Your task to perform on an android device: set an alarm Image 0: 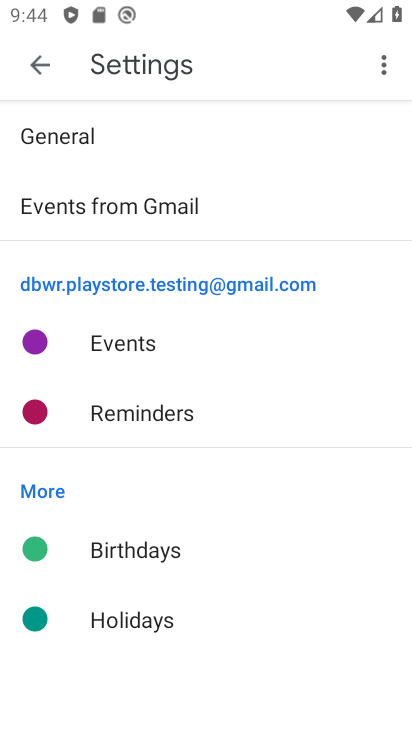
Step 0: press home button
Your task to perform on an android device: set an alarm Image 1: 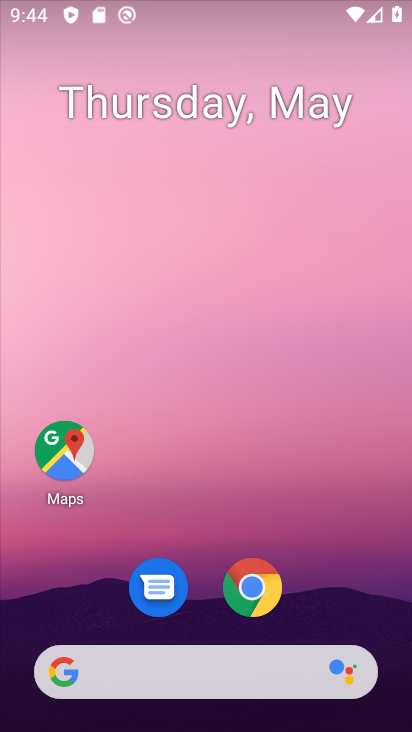
Step 1: drag from (384, 659) to (344, 29)
Your task to perform on an android device: set an alarm Image 2: 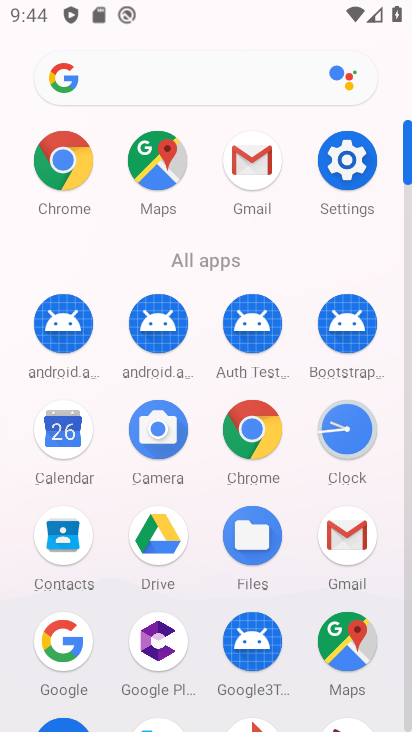
Step 2: click (357, 433)
Your task to perform on an android device: set an alarm Image 3: 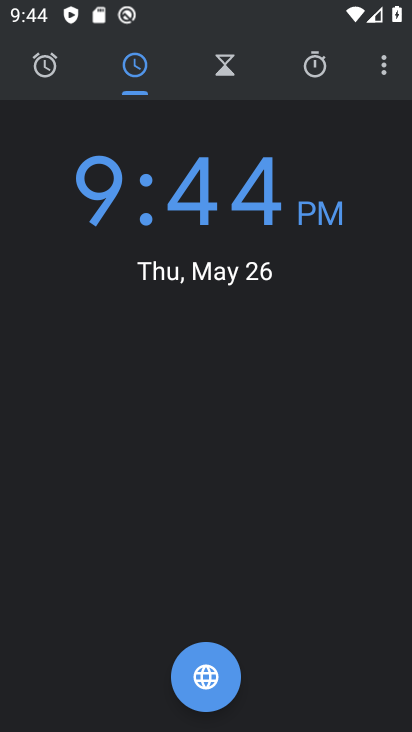
Step 3: click (53, 88)
Your task to perform on an android device: set an alarm Image 4: 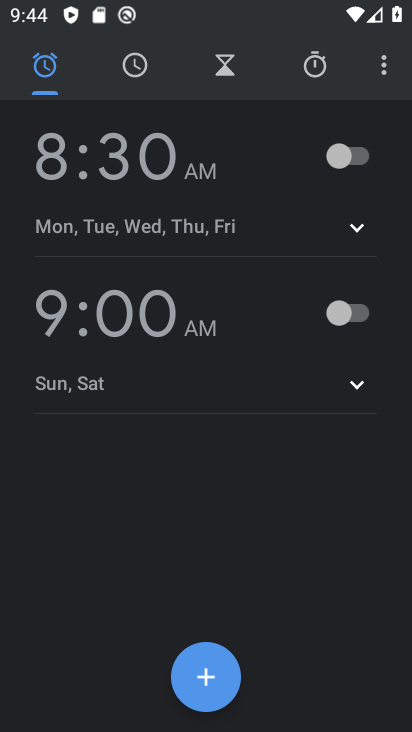
Step 4: click (366, 156)
Your task to perform on an android device: set an alarm Image 5: 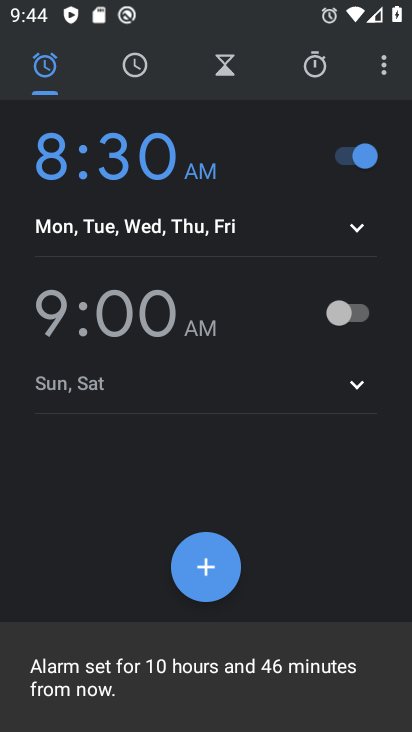
Step 5: task complete